Your task to perform on an android device: toggle notifications settings in the gmail app Image 0: 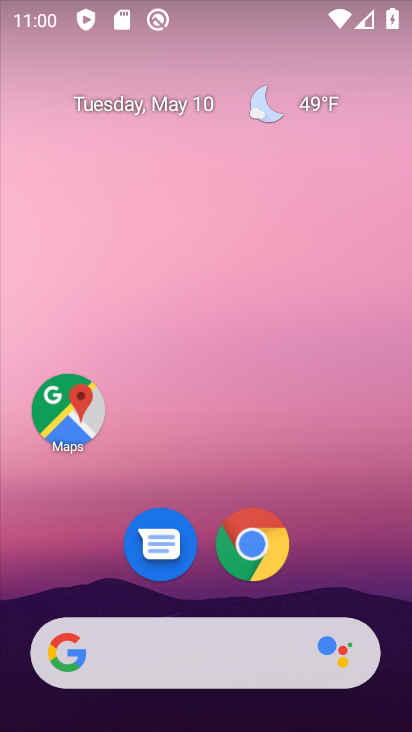
Step 0: drag from (166, 625) to (278, 147)
Your task to perform on an android device: toggle notifications settings in the gmail app Image 1: 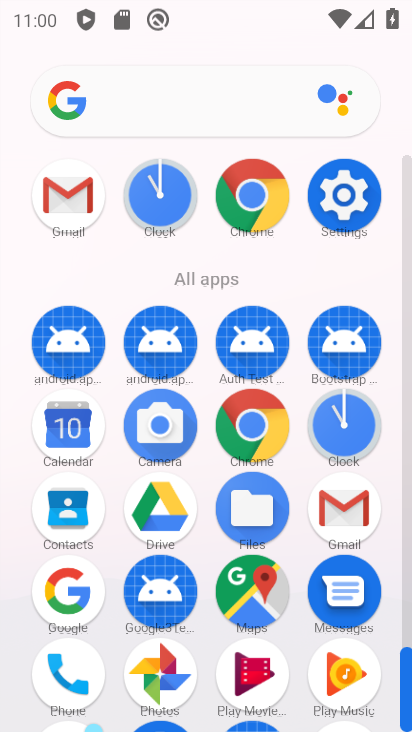
Step 1: drag from (116, 726) to (179, 431)
Your task to perform on an android device: toggle notifications settings in the gmail app Image 2: 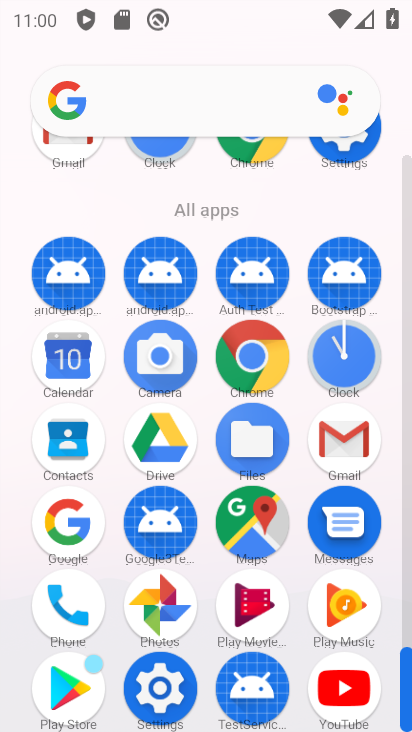
Step 2: click (339, 429)
Your task to perform on an android device: toggle notifications settings in the gmail app Image 3: 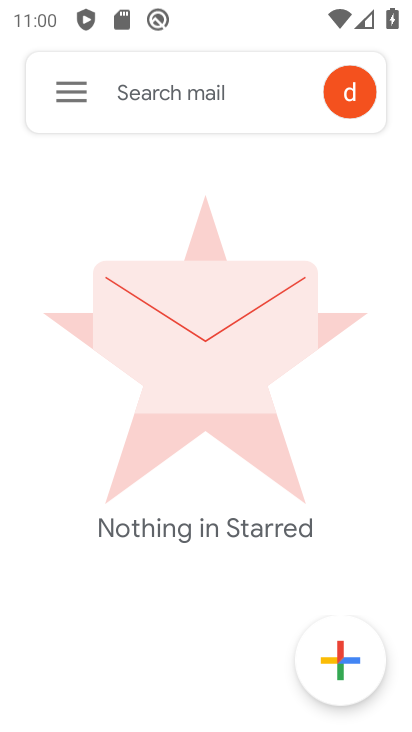
Step 3: click (89, 108)
Your task to perform on an android device: toggle notifications settings in the gmail app Image 4: 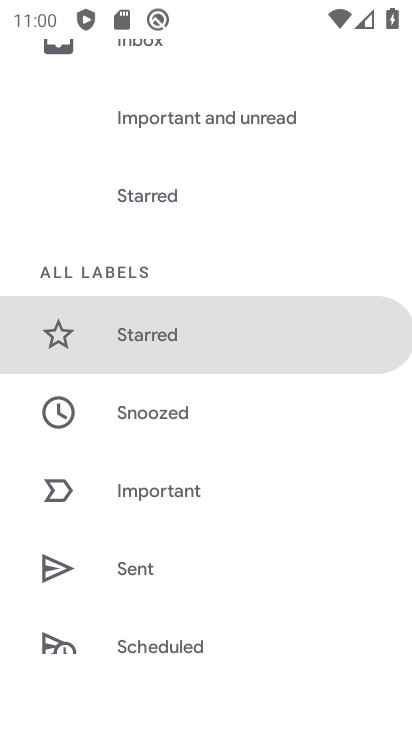
Step 4: drag from (134, 622) to (207, 311)
Your task to perform on an android device: toggle notifications settings in the gmail app Image 5: 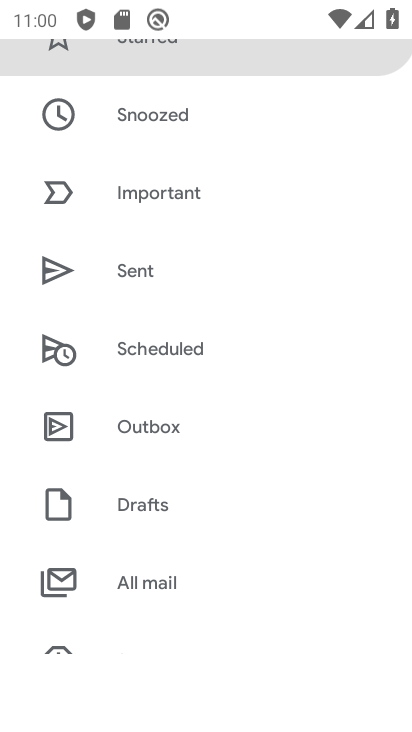
Step 5: drag from (196, 643) to (241, 397)
Your task to perform on an android device: toggle notifications settings in the gmail app Image 6: 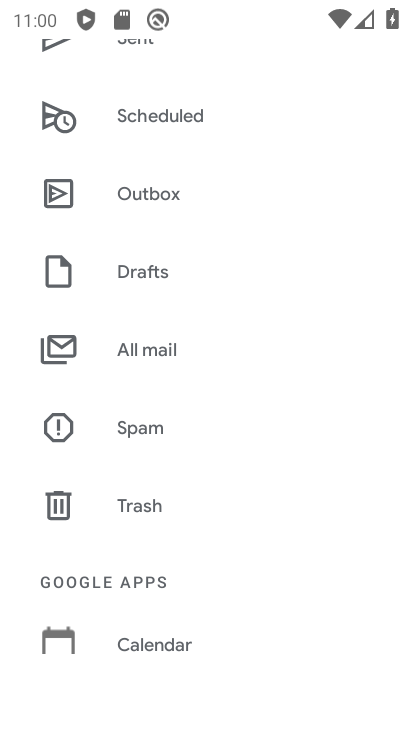
Step 6: drag from (175, 649) to (234, 377)
Your task to perform on an android device: toggle notifications settings in the gmail app Image 7: 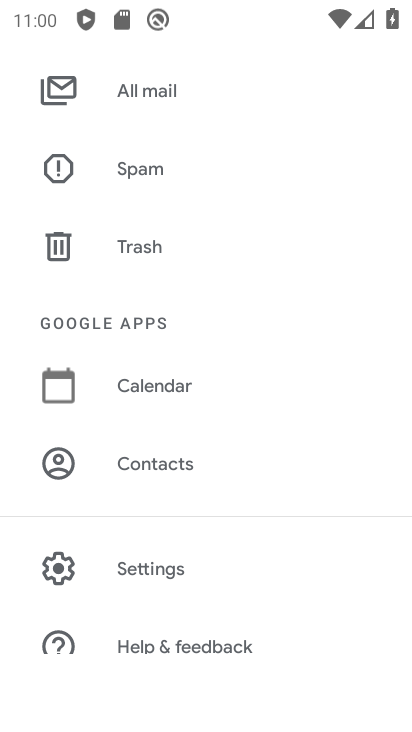
Step 7: click (210, 561)
Your task to perform on an android device: toggle notifications settings in the gmail app Image 8: 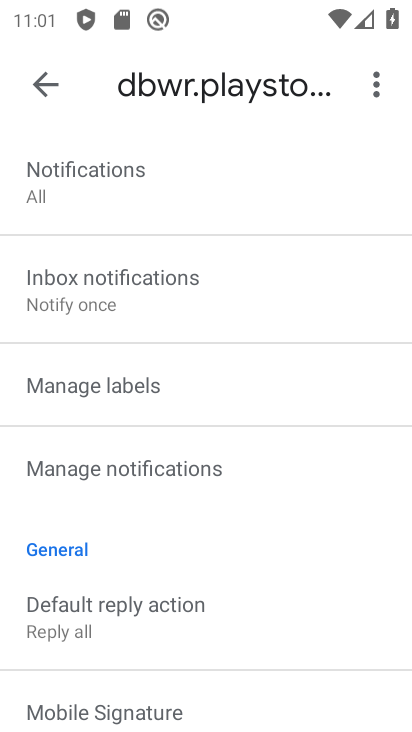
Step 8: drag from (122, 657) to (186, 421)
Your task to perform on an android device: toggle notifications settings in the gmail app Image 9: 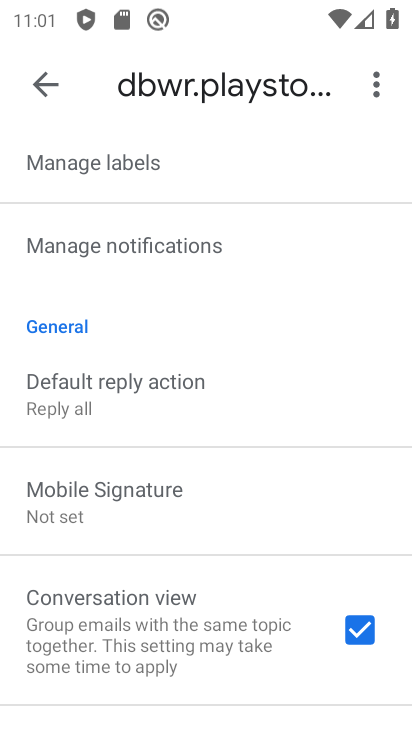
Step 9: drag from (142, 607) to (200, 295)
Your task to perform on an android device: toggle notifications settings in the gmail app Image 10: 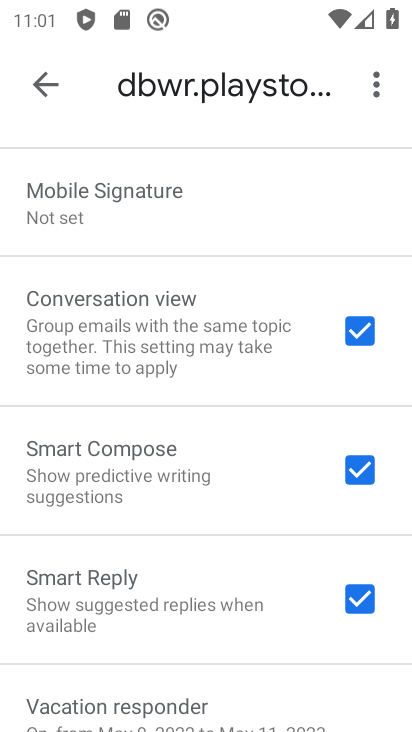
Step 10: drag from (224, 675) to (297, 727)
Your task to perform on an android device: toggle notifications settings in the gmail app Image 11: 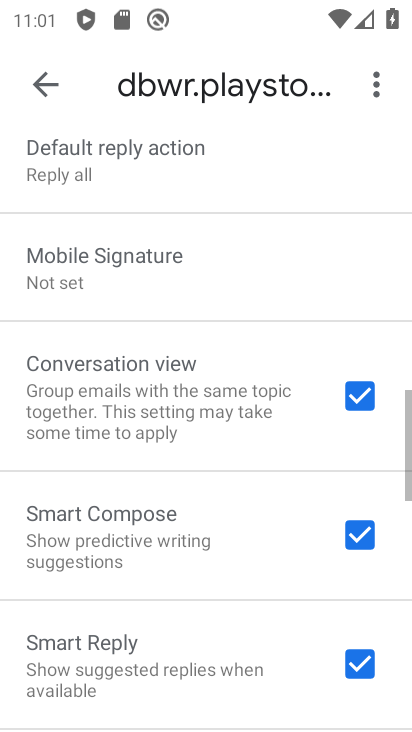
Step 11: drag from (237, 417) to (191, 695)
Your task to perform on an android device: toggle notifications settings in the gmail app Image 12: 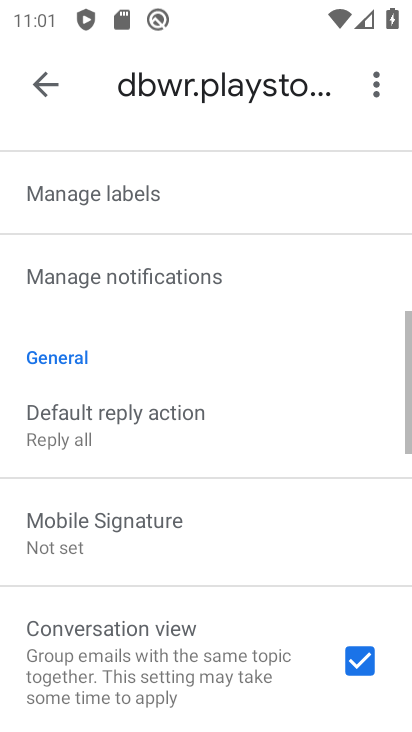
Step 12: drag from (212, 362) to (205, 725)
Your task to perform on an android device: toggle notifications settings in the gmail app Image 13: 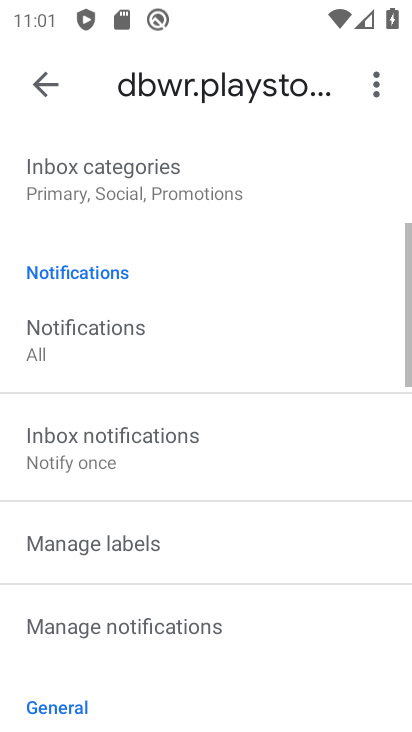
Step 13: click (219, 628)
Your task to perform on an android device: toggle notifications settings in the gmail app Image 14: 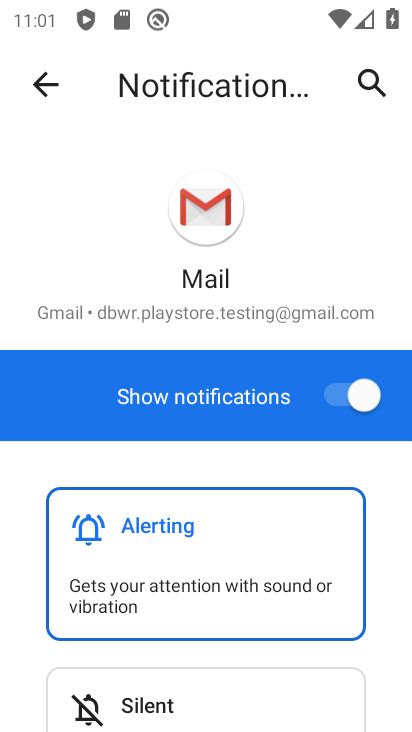
Step 14: drag from (324, 717) to (367, 533)
Your task to perform on an android device: toggle notifications settings in the gmail app Image 15: 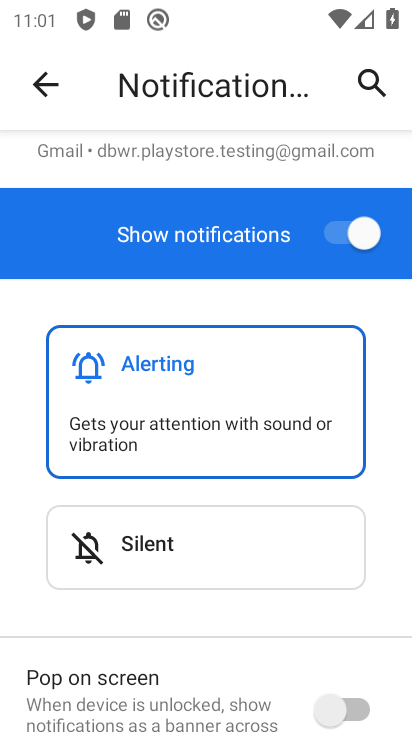
Step 15: click (333, 239)
Your task to perform on an android device: toggle notifications settings in the gmail app Image 16: 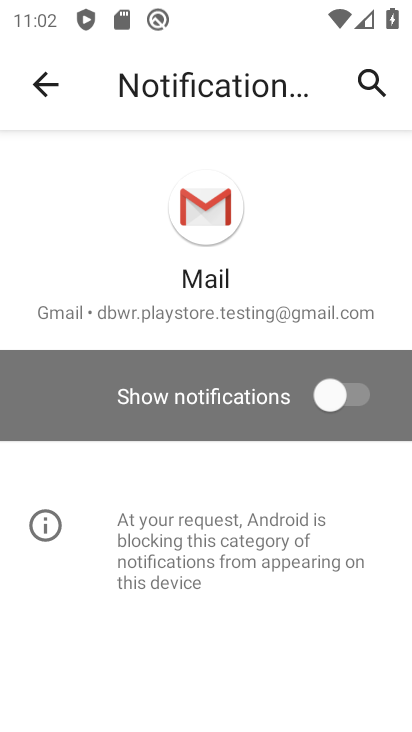
Step 16: task complete